Your task to perform on an android device: snooze an email in the gmail app Image 0: 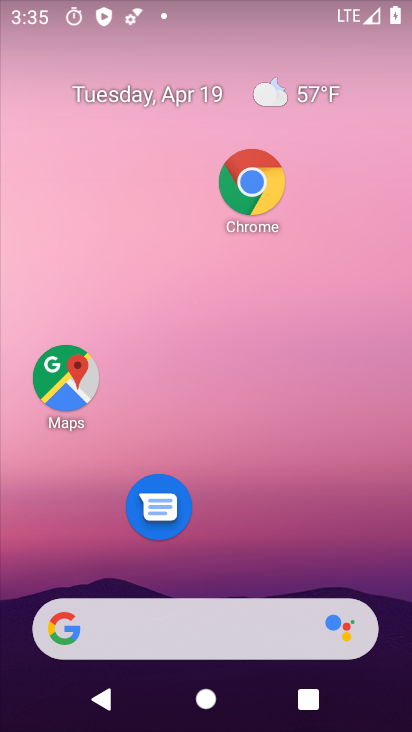
Step 0: drag from (220, 514) to (259, 210)
Your task to perform on an android device: snooze an email in the gmail app Image 1: 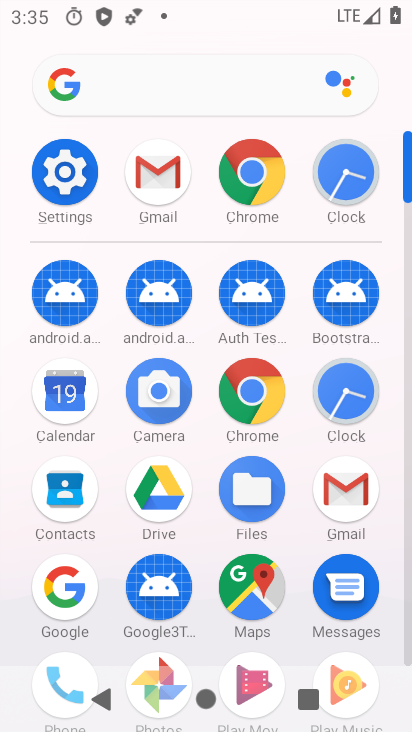
Step 1: click (337, 505)
Your task to perform on an android device: snooze an email in the gmail app Image 2: 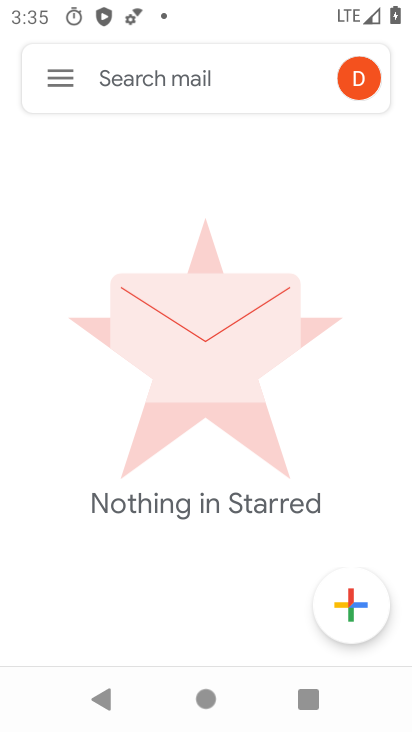
Step 2: click (54, 88)
Your task to perform on an android device: snooze an email in the gmail app Image 3: 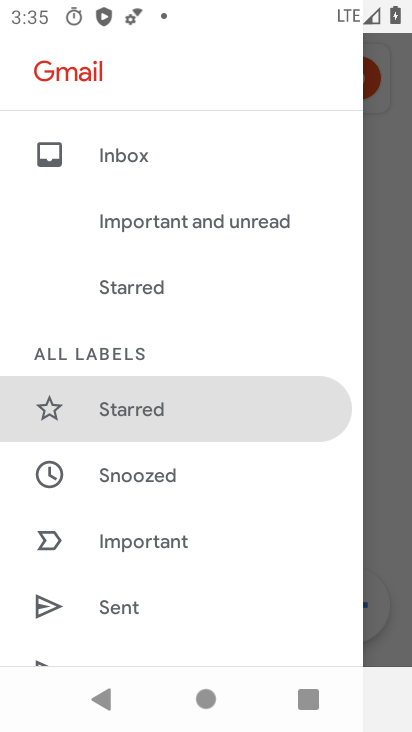
Step 3: drag from (186, 238) to (201, 172)
Your task to perform on an android device: snooze an email in the gmail app Image 4: 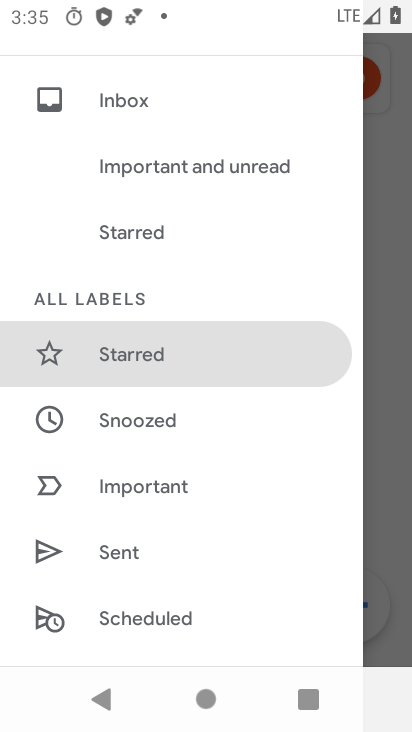
Step 4: drag from (196, 583) to (214, 259)
Your task to perform on an android device: snooze an email in the gmail app Image 5: 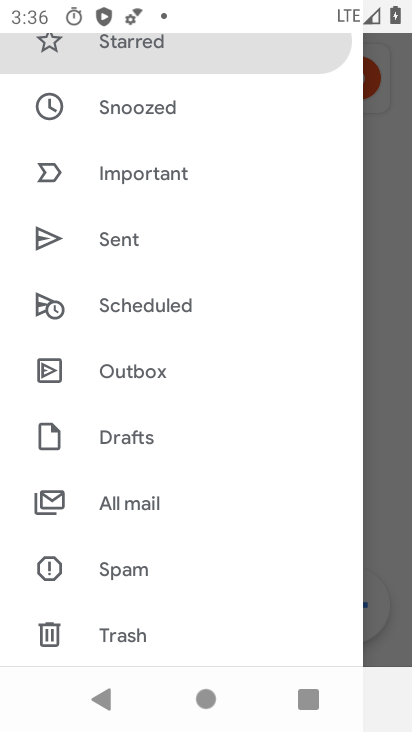
Step 5: drag from (153, 585) to (171, 435)
Your task to perform on an android device: snooze an email in the gmail app Image 6: 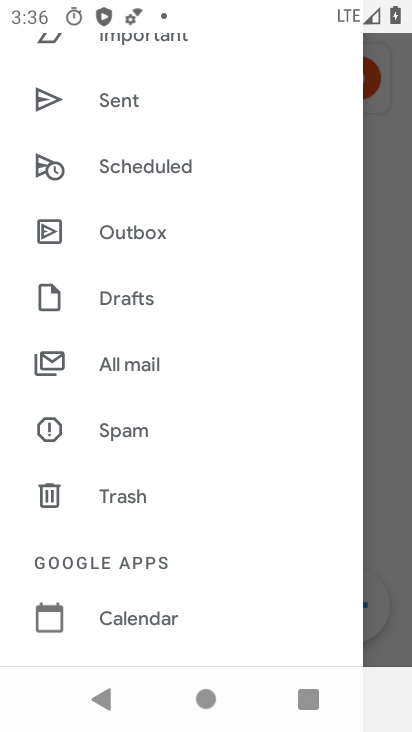
Step 6: click (175, 372)
Your task to perform on an android device: snooze an email in the gmail app Image 7: 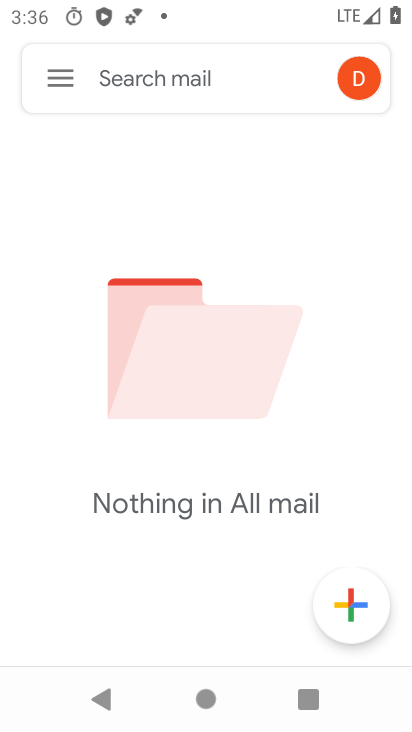
Step 7: task complete